Your task to perform on an android device: toggle location history Image 0: 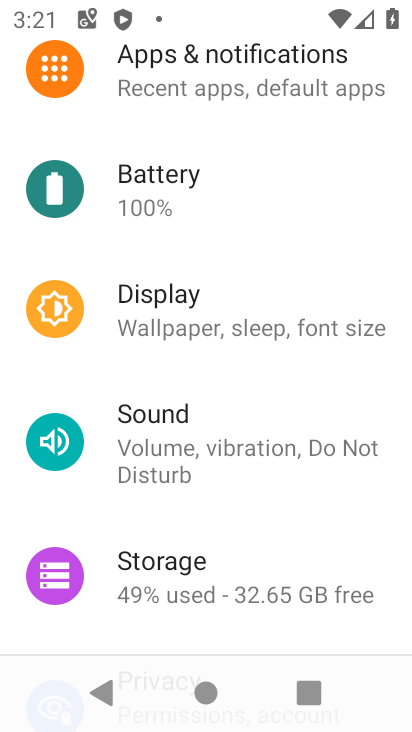
Step 0: drag from (300, 542) to (279, 188)
Your task to perform on an android device: toggle location history Image 1: 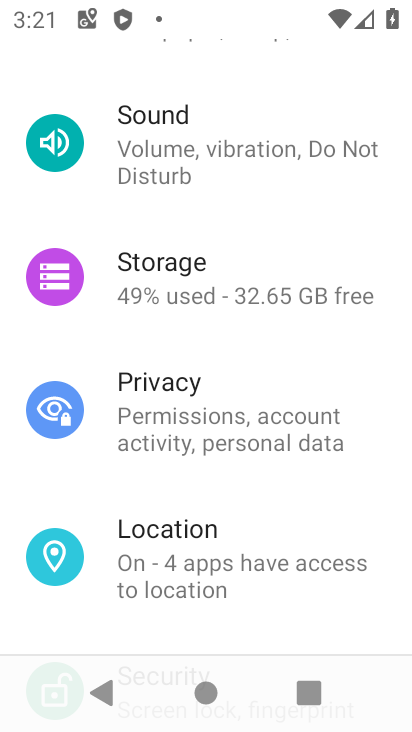
Step 1: click (157, 558)
Your task to perform on an android device: toggle location history Image 2: 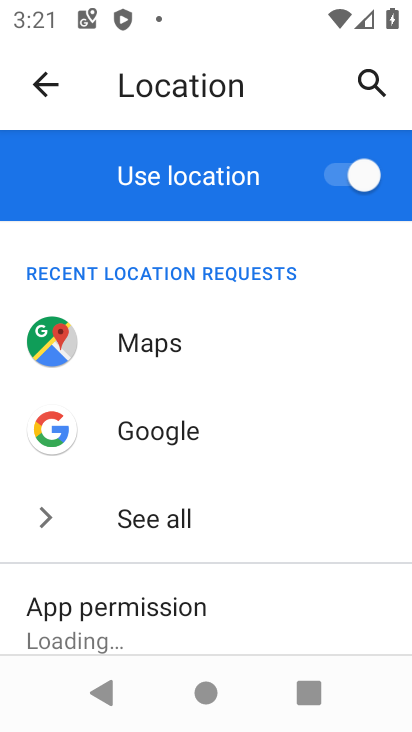
Step 2: drag from (291, 616) to (293, 274)
Your task to perform on an android device: toggle location history Image 3: 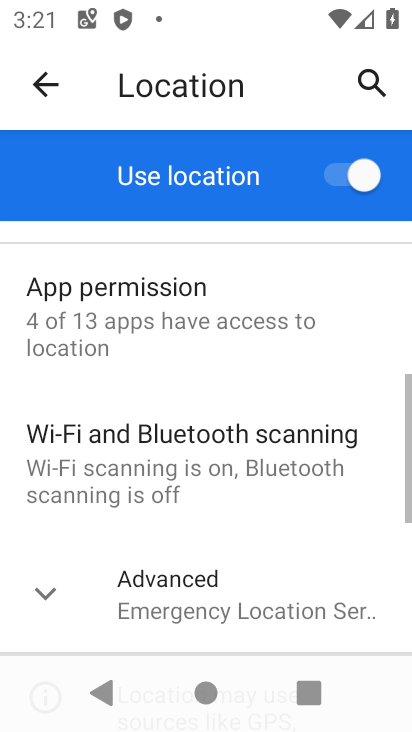
Step 3: click (43, 599)
Your task to perform on an android device: toggle location history Image 4: 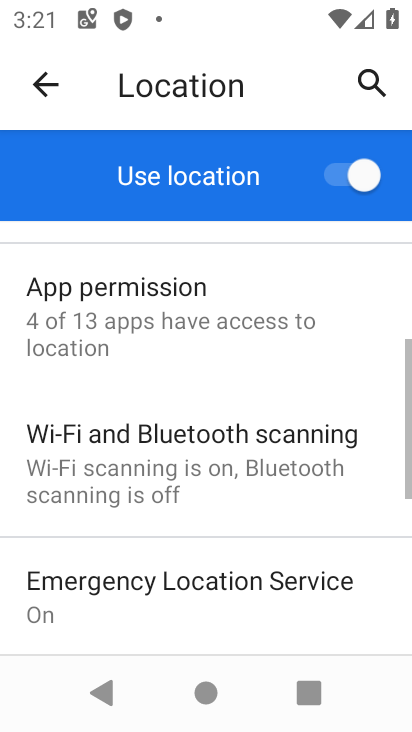
Step 4: drag from (357, 612) to (323, 279)
Your task to perform on an android device: toggle location history Image 5: 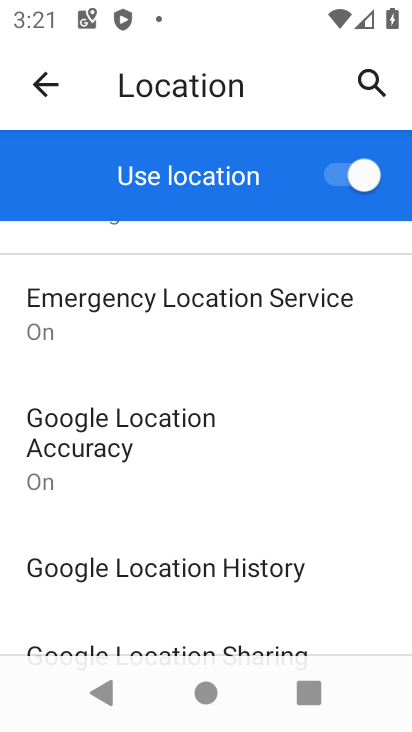
Step 5: click (173, 554)
Your task to perform on an android device: toggle location history Image 6: 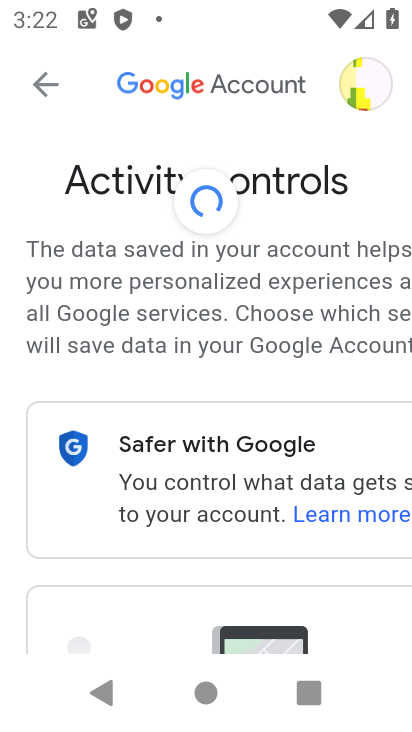
Step 6: drag from (347, 643) to (309, 290)
Your task to perform on an android device: toggle location history Image 7: 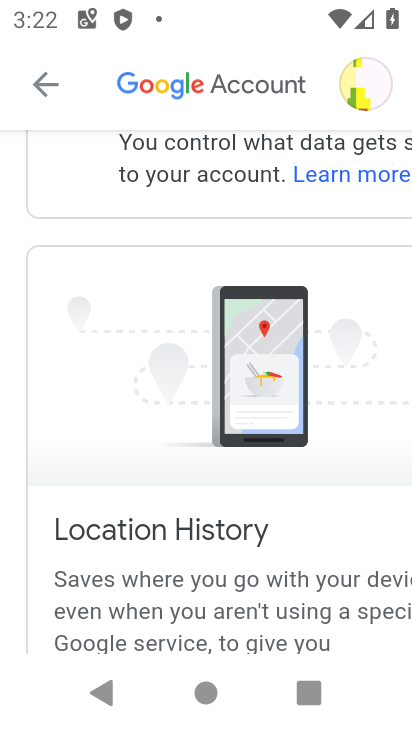
Step 7: drag from (270, 606) to (255, 386)
Your task to perform on an android device: toggle location history Image 8: 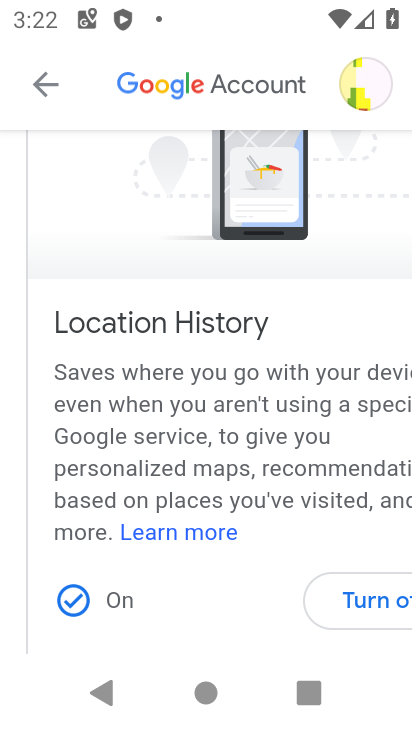
Step 8: drag from (211, 580) to (268, 253)
Your task to perform on an android device: toggle location history Image 9: 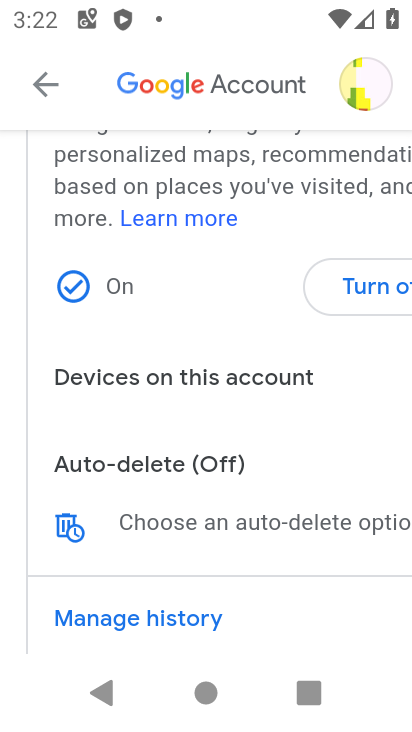
Step 9: click (359, 286)
Your task to perform on an android device: toggle location history Image 10: 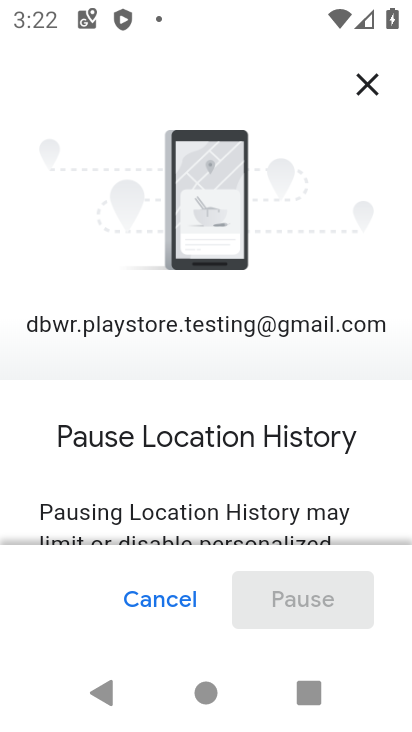
Step 10: drag from (298, 516) to (332, 219)
Your task to perform on an android device: toggle location history Image 11: 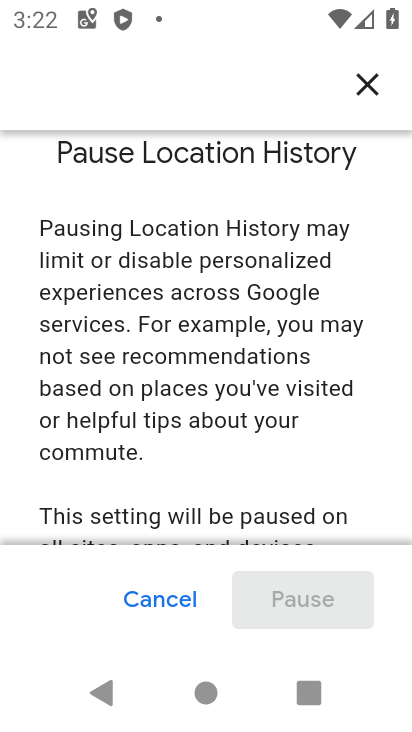
Step 11: drag from (345, 443) to (329, 189)
Your task to perform on an android device: toggle location history Image 12: 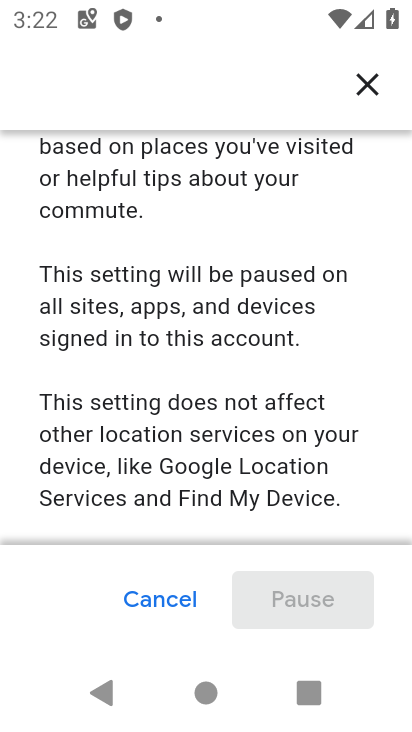
Step 12: drag from (310, 504) to (309, 233)
Your task to perform on an android device: toggle location history Image 13: 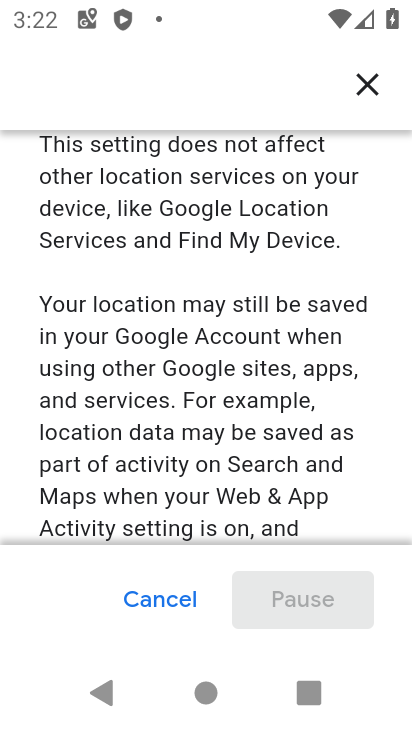
Step 13: drag from (309, 498) to (310, 227)
Your task to perform on an android device: toggle location history Image 14: 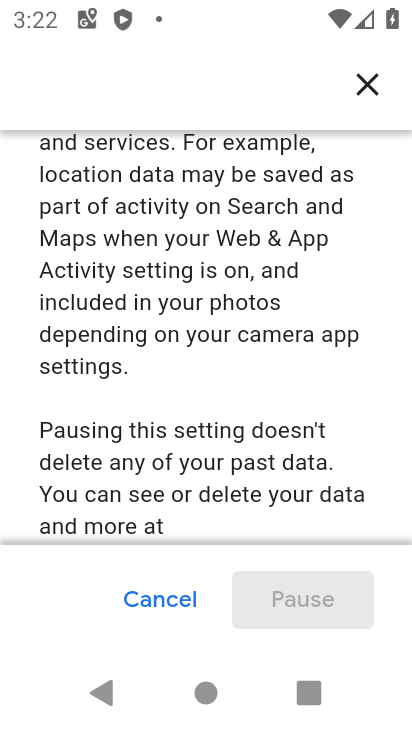
Step 14: drag from (331, 499) to (344, 207)
Your task to perform on an android device: toggle location history Image 15: 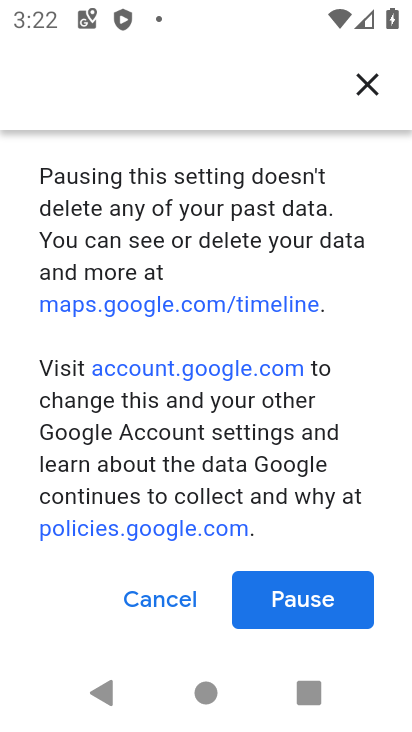
Step 15: click (279, 600)
Your task to perform on an android device: toggle location history Image 16: 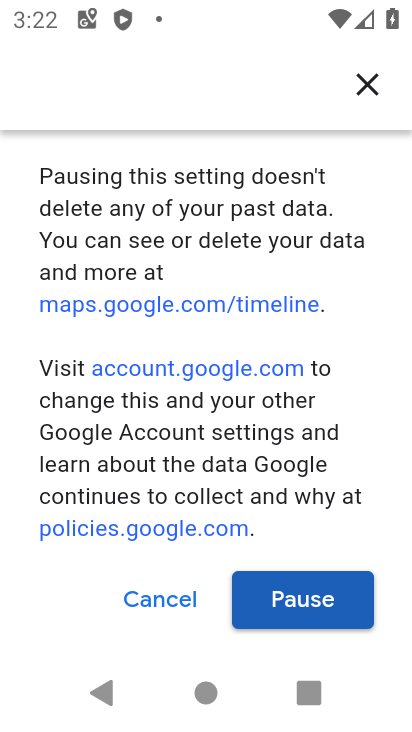
Step 16: click (300, 594)
Your task to perform on an android device: toggle location history Image 17: 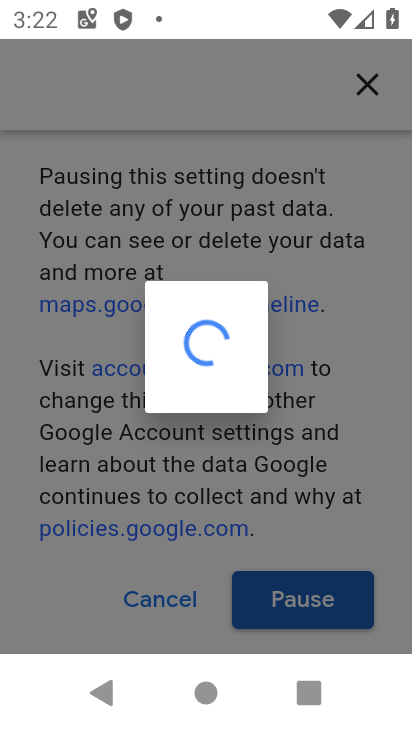
Step 17: task complete